Your task to perform on an android device: When is my next appointment? Image 0: 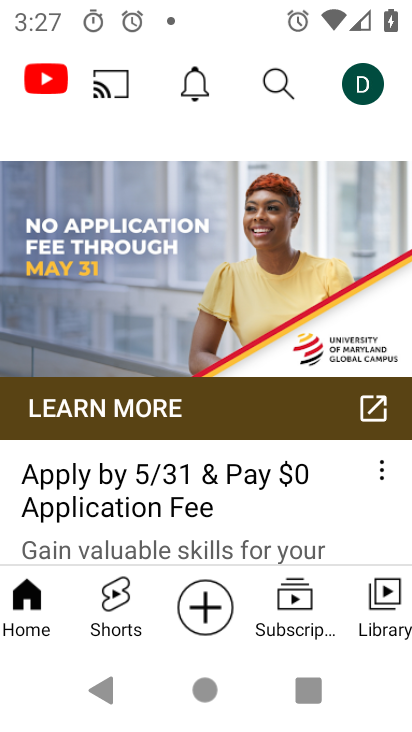
Step 0: press home button
Your task to perform on an android device: When is my next appointment? Image 1: 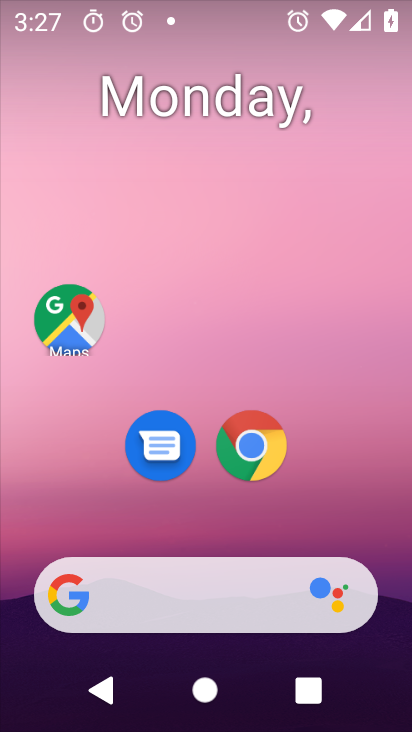
Step 1: drag from (160, 568) to (215, 86)
Your task to perform on an android device: When is my next appointment? Image 2: 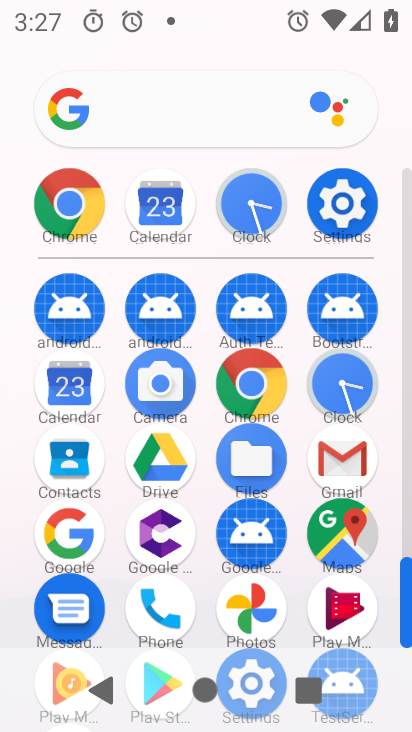
Step 2: click (65, 388)
Your task to perform on an android device: When is my next appointment? Image 3: 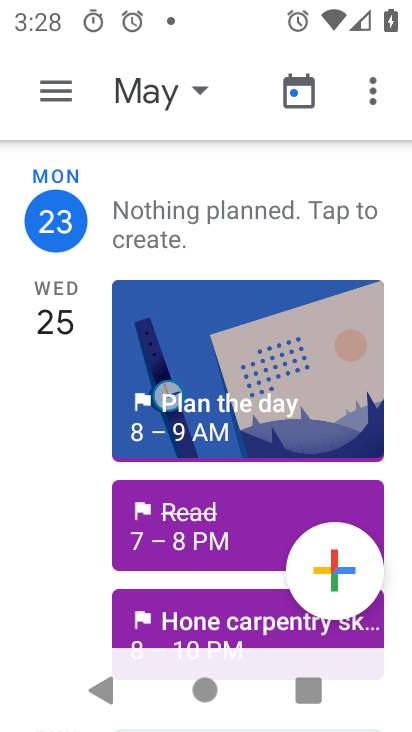
Step 3: task complete